Your task to perform on an android device: Open eBay Image 0: 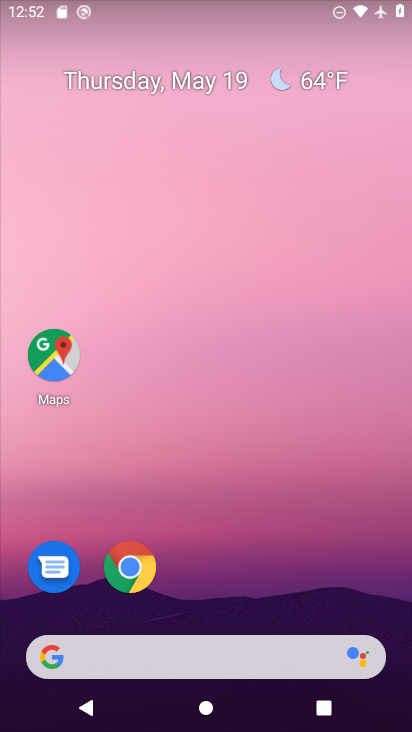
Step 0: drag from (204, 569) to (204, 94)
Your task to perform on an android device: Open eBay Image 1: 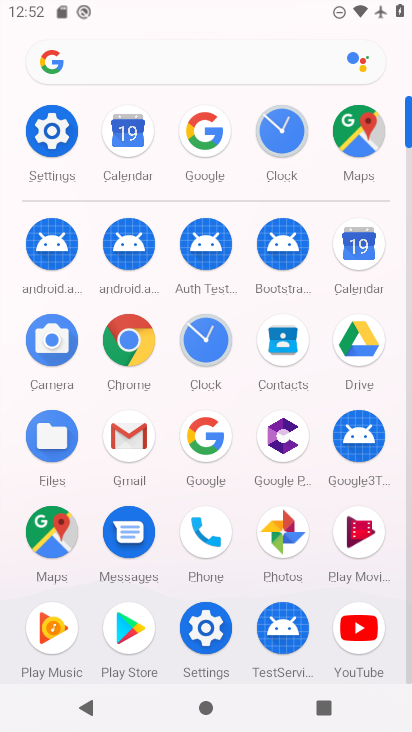
Step 1: click (220, 441)
Your task to perform on an android device: Open eBay Image 2: 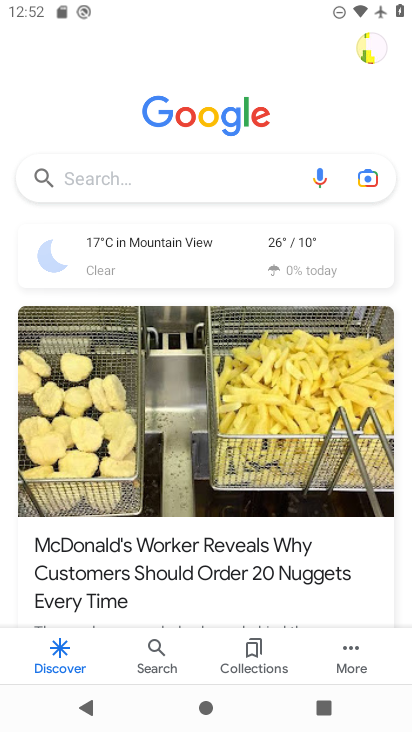
Step 2: click (164, 181)
Your task to perform on an android device: Open eBay Image 3: 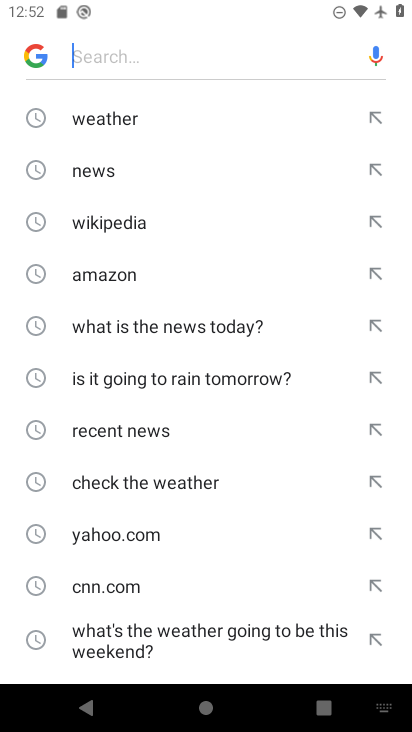
Step 3: drag from (259, 529) to (237, 167)
Your task to perform on an android device: Open eBay Image 4: 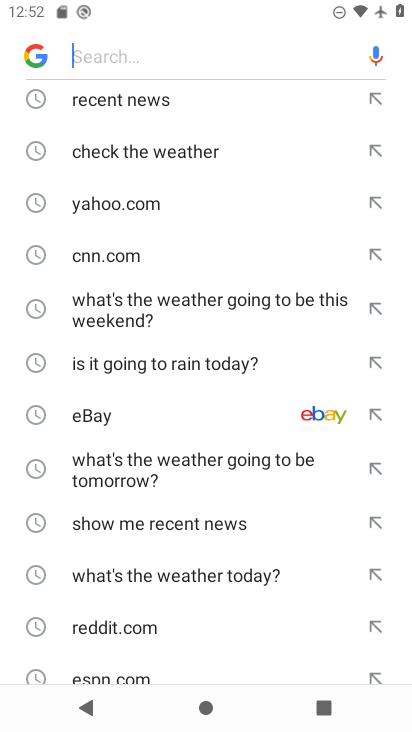
Step 4: click (112, 417)
Your task to perform on an android device: Open eBay Image 5: 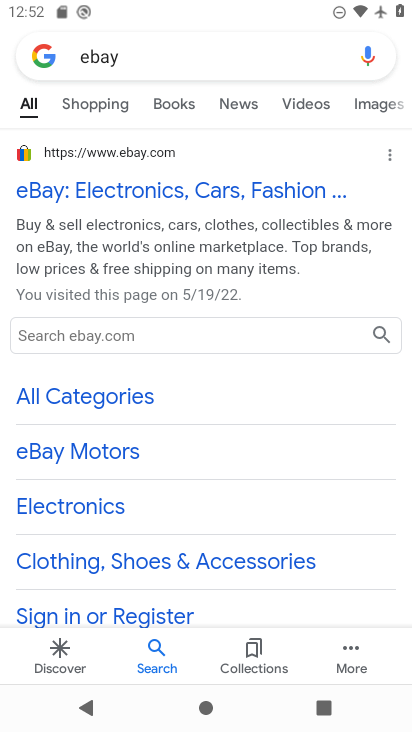
Step 5: task complete